Your task to perform on an android device: Search for sushi restaurants on Maps Image 0: 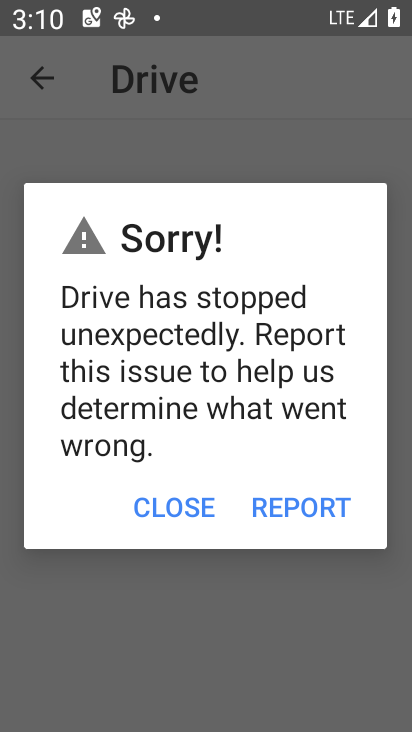
Step 0: press home button
Your task to perform on an android device: Search for sushi restaurants on Maps Image 1: 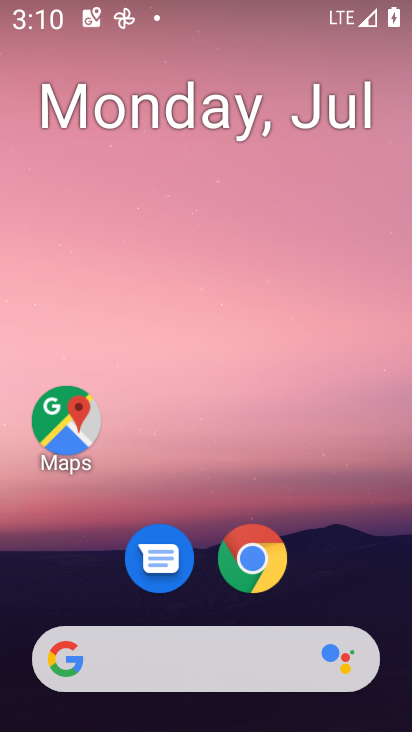
Step 1: drag from (344, 498) to (333, 56)
Your task to perform on an android device: Search for sushi restaurants on Maps Image 2: 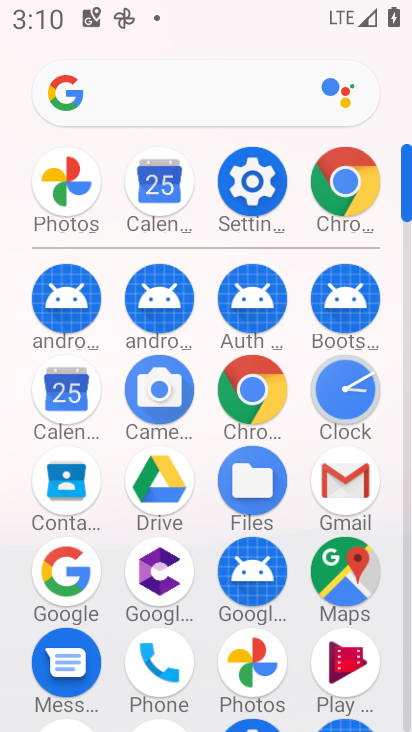
Step 2: click (350, 587)
Your task to perform on an android device: Search for sushi restaurants on Maps Image 3: 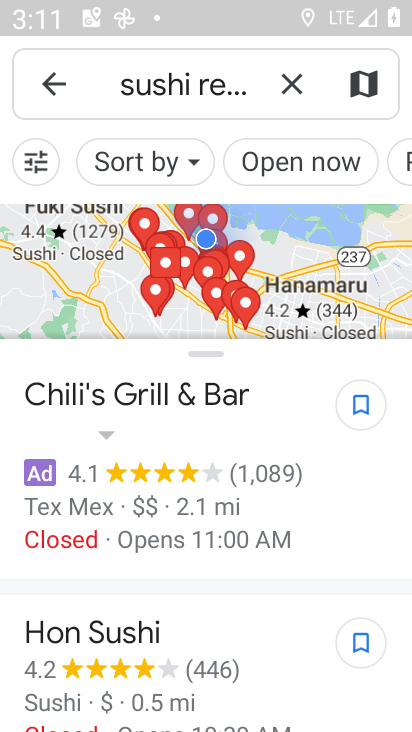
Step 3: task complete